Your task to perform on an android device: What is the recent news? Image 0: 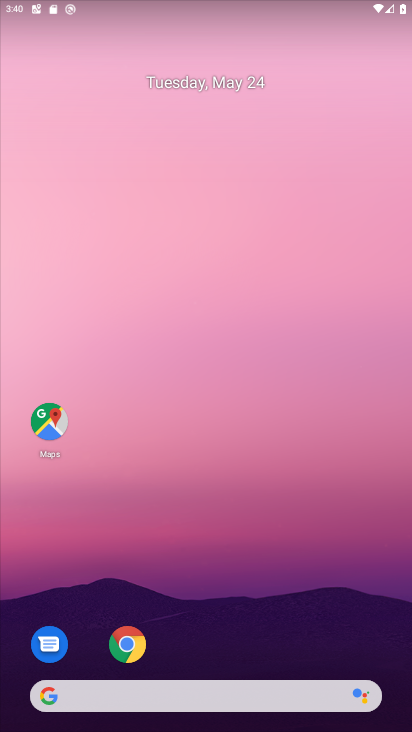
Step 0: drag from (377, 617) to (268, 145)
Your task to perform on an android device: What is the recent news? Image 1: 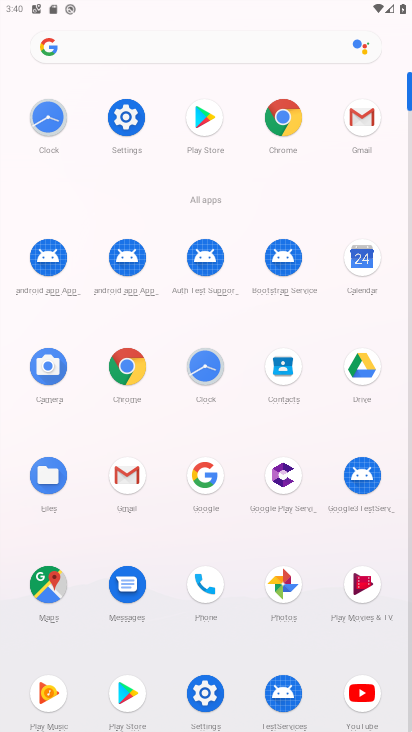
Step 1: click (216, 50)
Your task to perform on an android device: What is the recent news? Image 2: 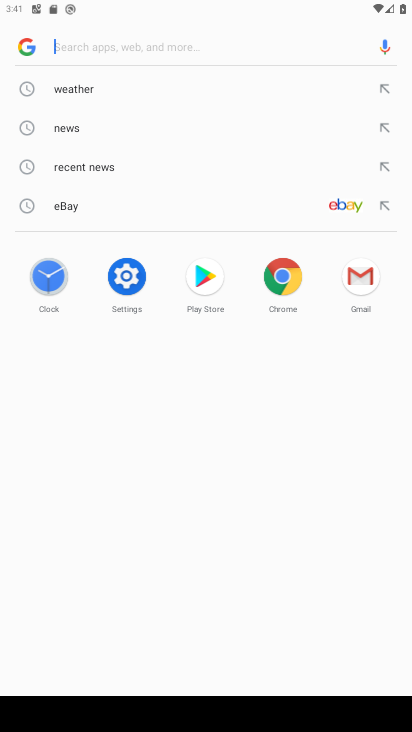
Step 2: click (225, 164)
Your task to perform on an android device: What is the recent news? Image 3: 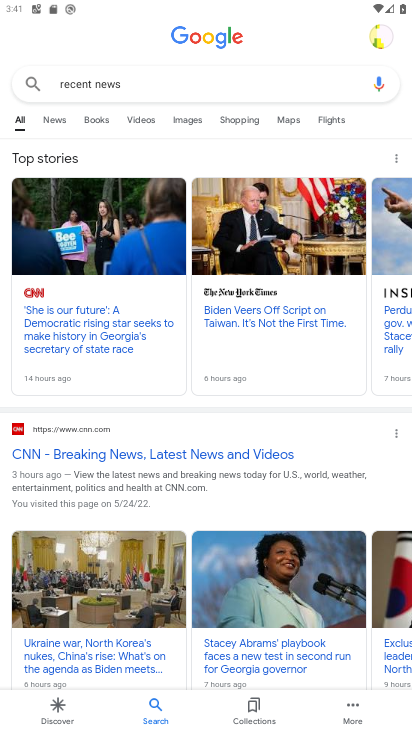
Step 3: task complete